Your task to perform on an android device: Go to location settings Image 0: 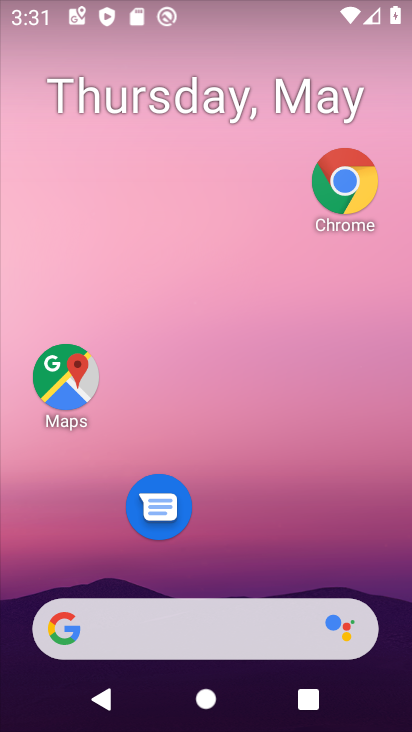
Step 0: drag from (237, 553) to (245, 102)
Your task to perform on an android device: Go to location settings Image 1: 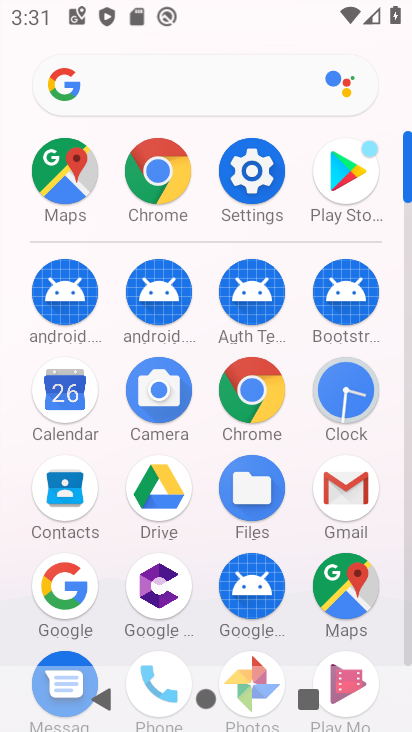
Step 1: click (254, 174)
Your task to perform on an android device: Go to location settings Image 2: 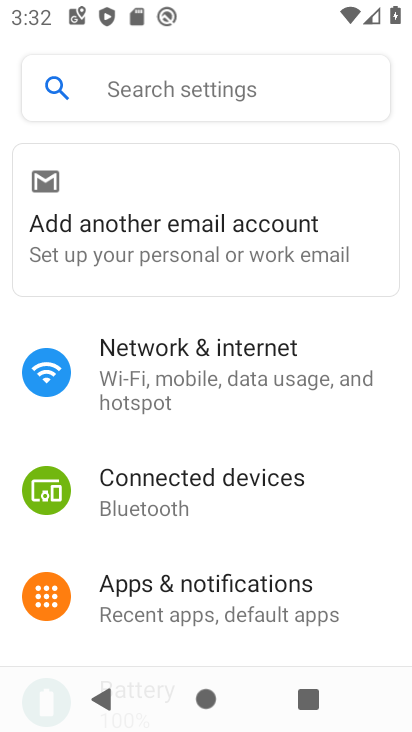
Step 2: drag from (351, 598) to (339, 186)
Your task to perform on an android device: Go to location settings Image 3: 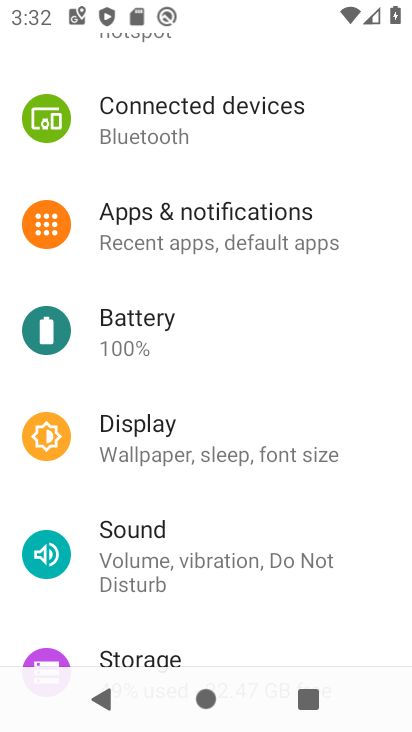
Step 3: drag from (330, 616) to (332, 213)
Your task to perform on an android device: Go to location settings Image 4: 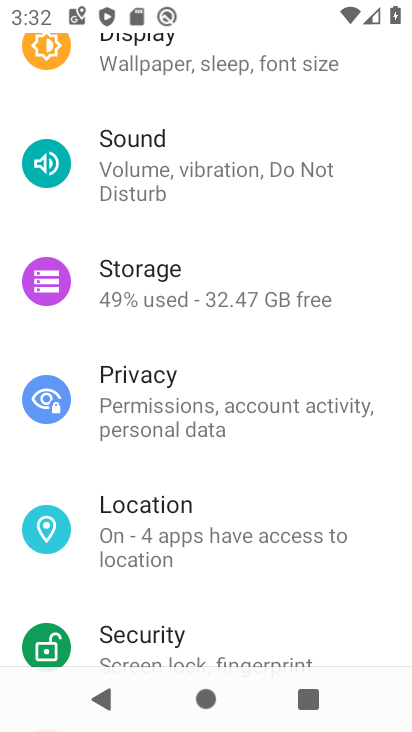
Step 4: drag from (259, 596) to (252, 260)
Your task to perform on an android device: Go to location settings Image 5: 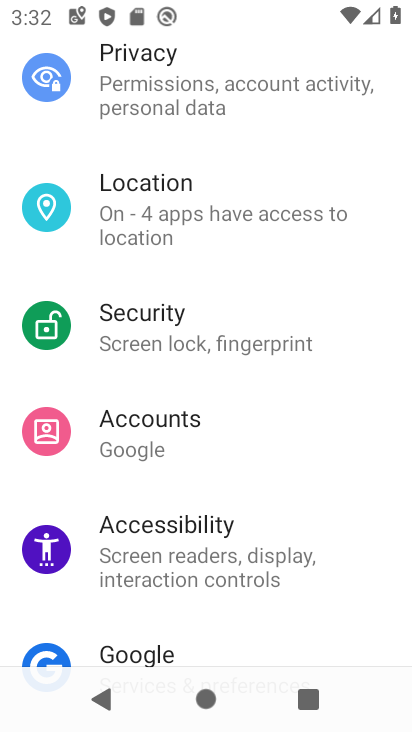
Step 5: click (155, 205)
Your task to perform on an android device: Go to location settings Image 6: 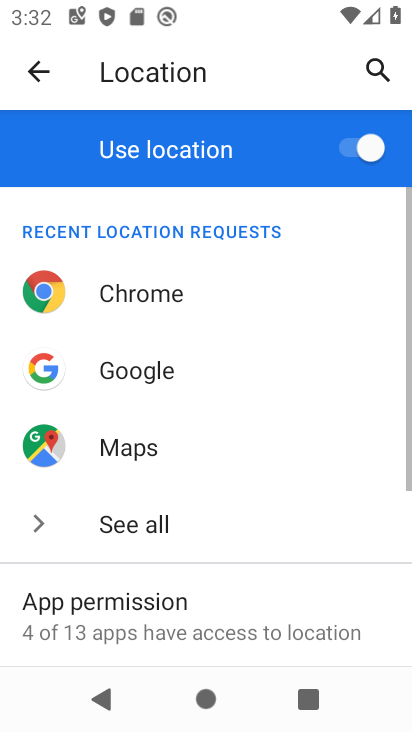
Step 6: task complete